Your task to perform on an android device: turn off translation in the chrome app Image 0: 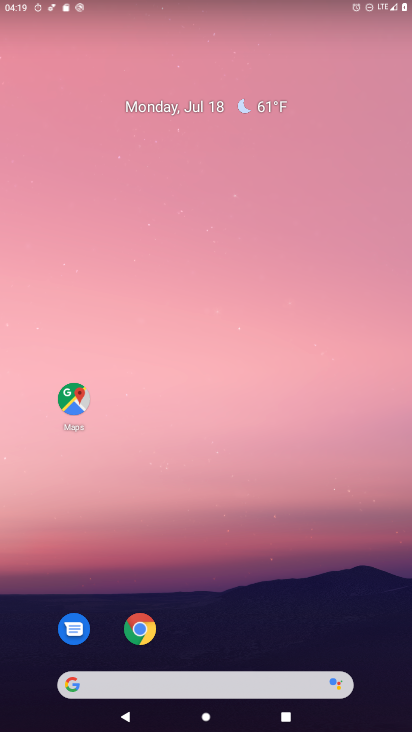
Step 0: click (140, 629)
Your task to perform on an android device: turn off translation in the chrome app Image 1: 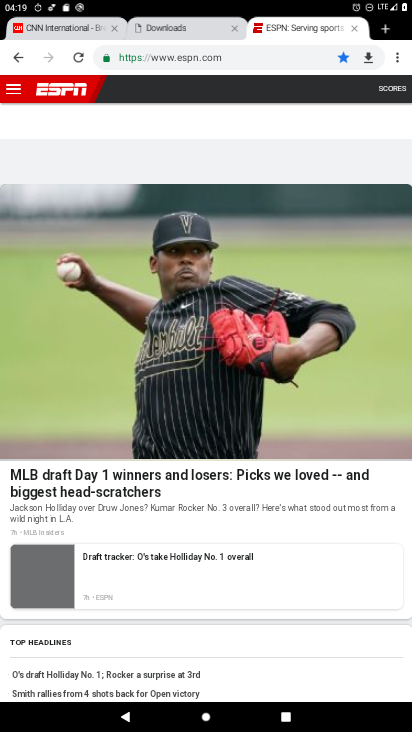
Step 1: click (399, 59)
Your task to perform on an android device: turn off translation in the chrome app Image 2: 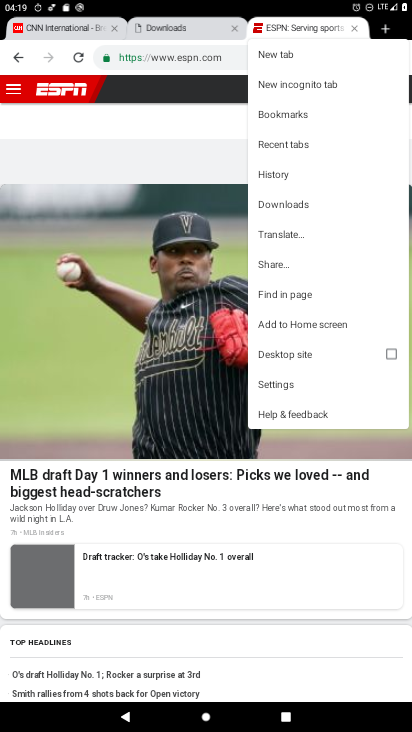
Step 2: click (287, 384)
Your task to perform on an android device: turn off translation in the chrome app Image 3: 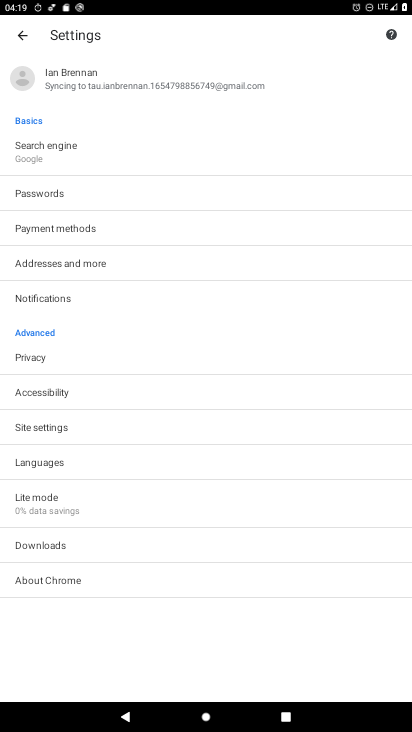
Step 3: click (44, 464)
Your task to perform on an android device: turn off translation in the chrome app Image 4: 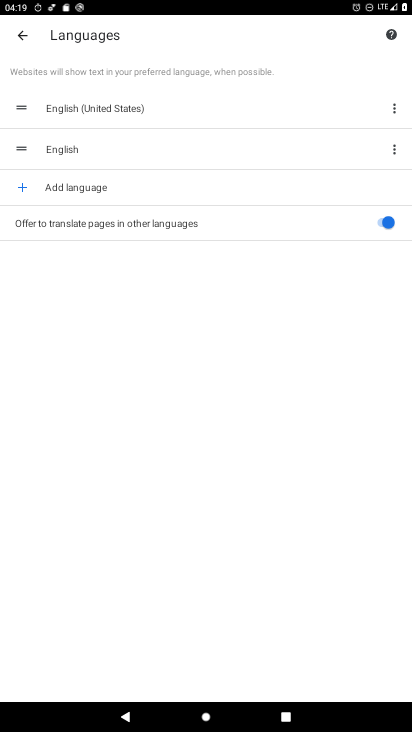
Step 4: click (383, 224)
Your task to perform on an android device: turn off translation in the chrome app Image 5: 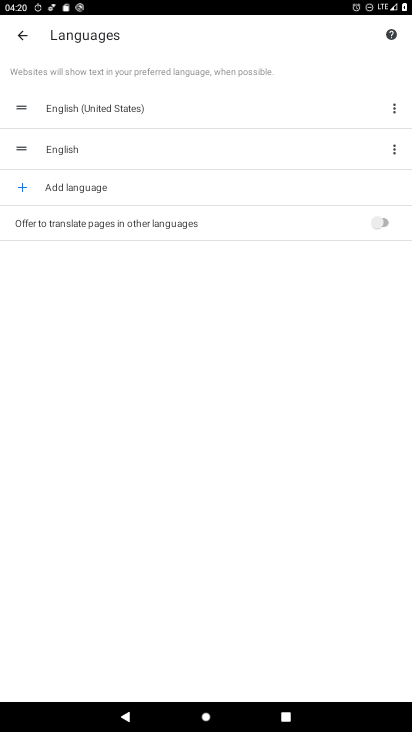
Step 5: task complete